Your task to perform on an android device: toggle wifi Image 0: 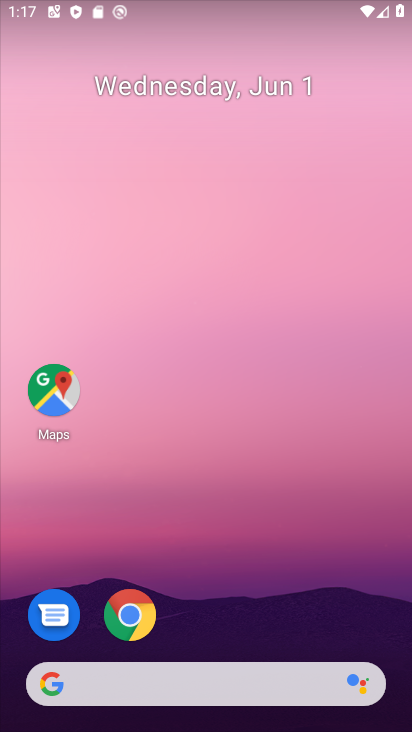
Step 0: task complete